Your task to perform on an android device: Add "dell alienware" to the cart on target.com, then select checkout. Image 0: 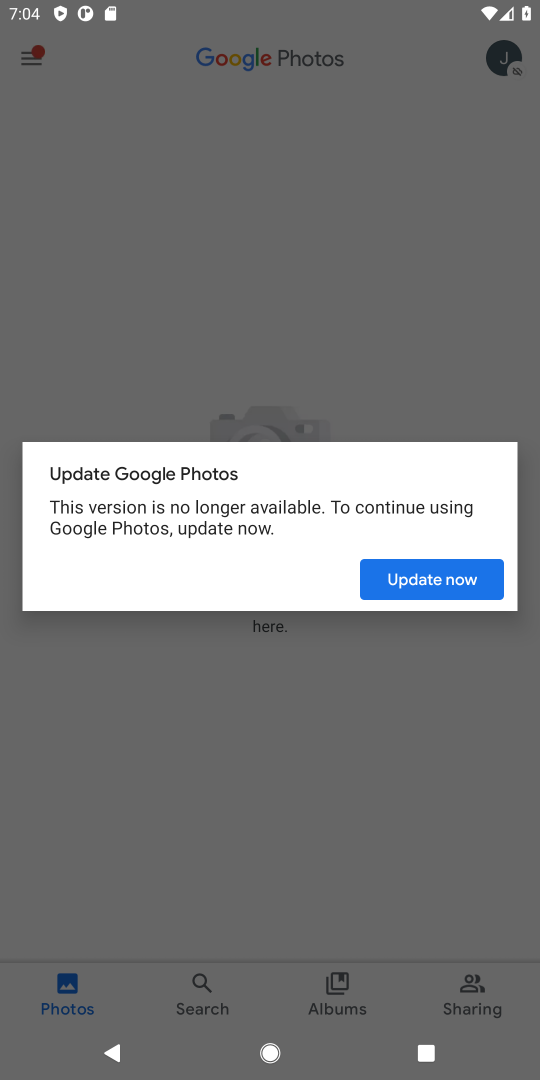
Step 0: press home button
Your task to perform on an android device: Add "dell alienware" to the cart on target.com, then select checkout. Image 1: 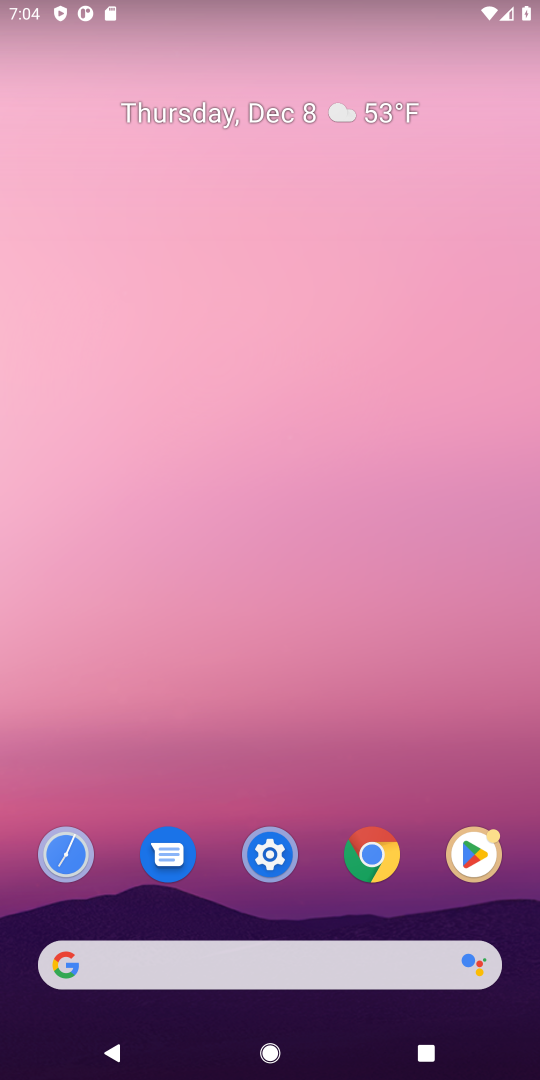
Step 1: click (87, 964)
Your task to perform on an android device: Add "dell alienware" to the cart on target.com, then select checkout. Image 2: 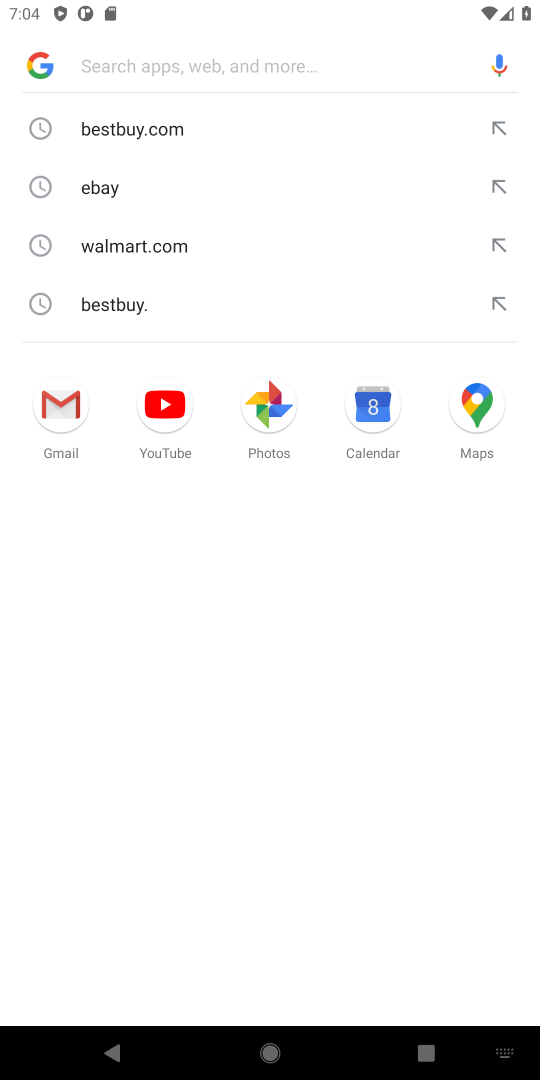
Step 2: type "target.com"
Your task to perform on an android device: Add "dell alienware" to the cart on target.com, then select checkout. Image 3: 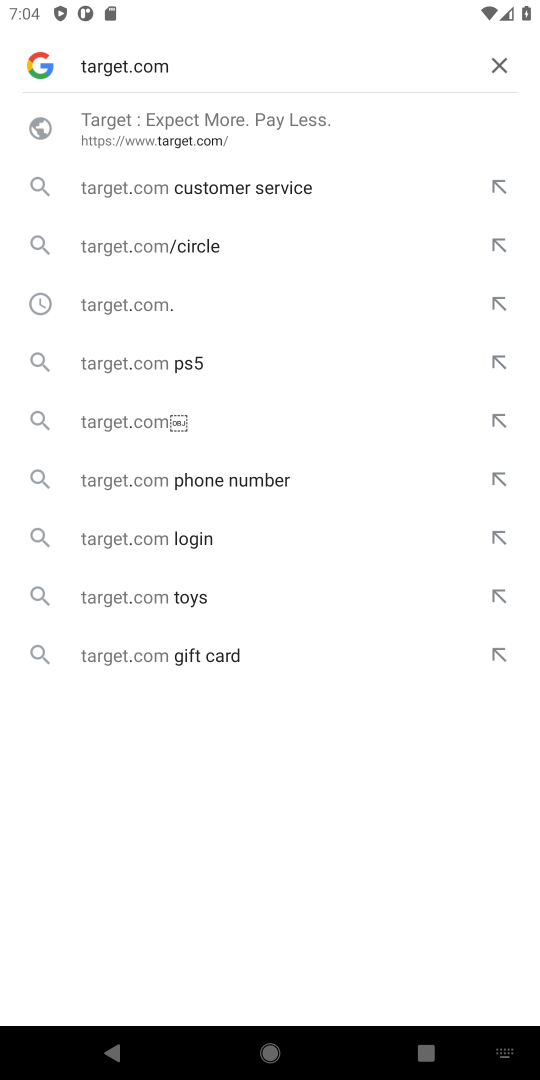
Step 3: press enter
Your task to perform on an android device: Add "dell alienware" to the cart on target.com, then select checkout. Image 4: 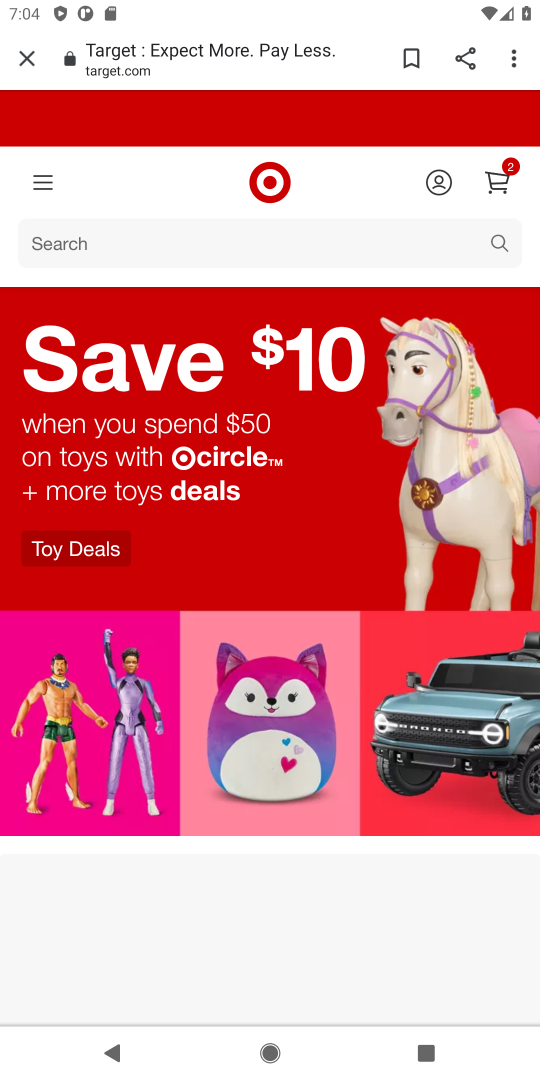
Step 4: click (48, 239)
Your task to perform on an android device: Add "dell alienware" to the cart on target.com, then select checkout. Image 5: 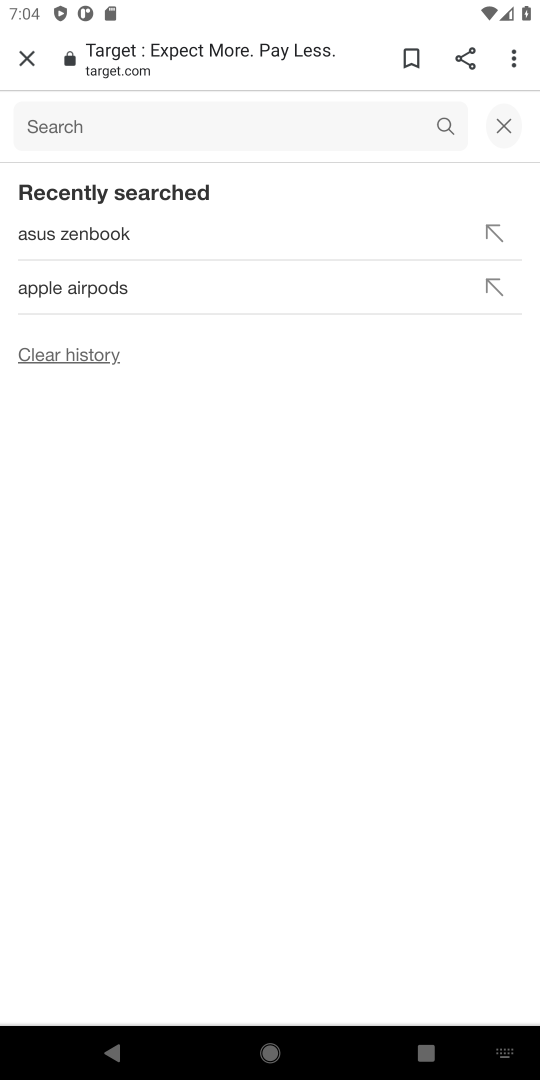
Step 5: type "dell alienware"
Your task to perform on an android device: Add "dell alienware" to the cart on target.com, then select checkout. Image 6: 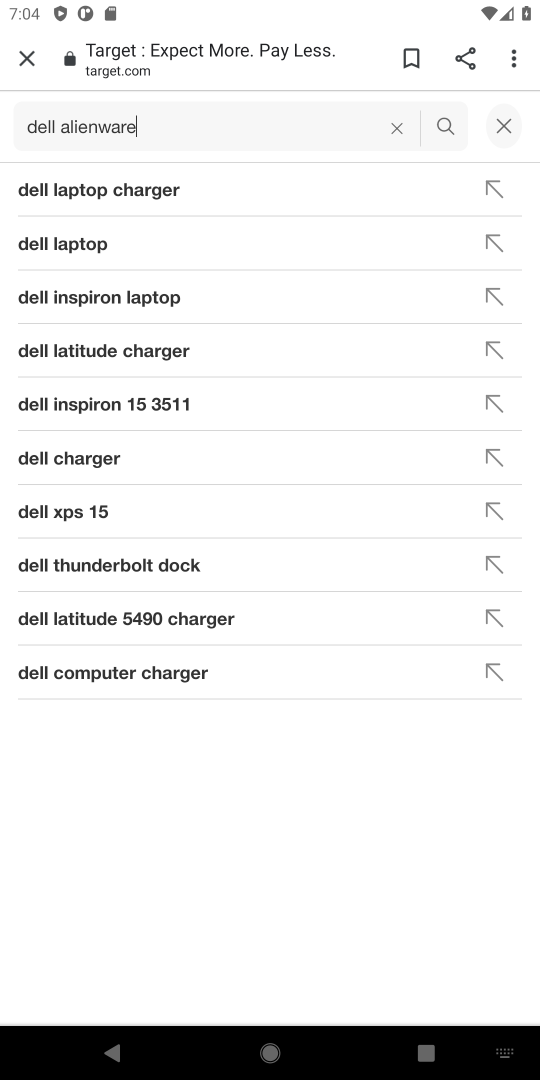
Step 6: press enter
Your task to perform on an android device: Add "dell alienware" to the cart on target.com, then select checkout. Image 7: 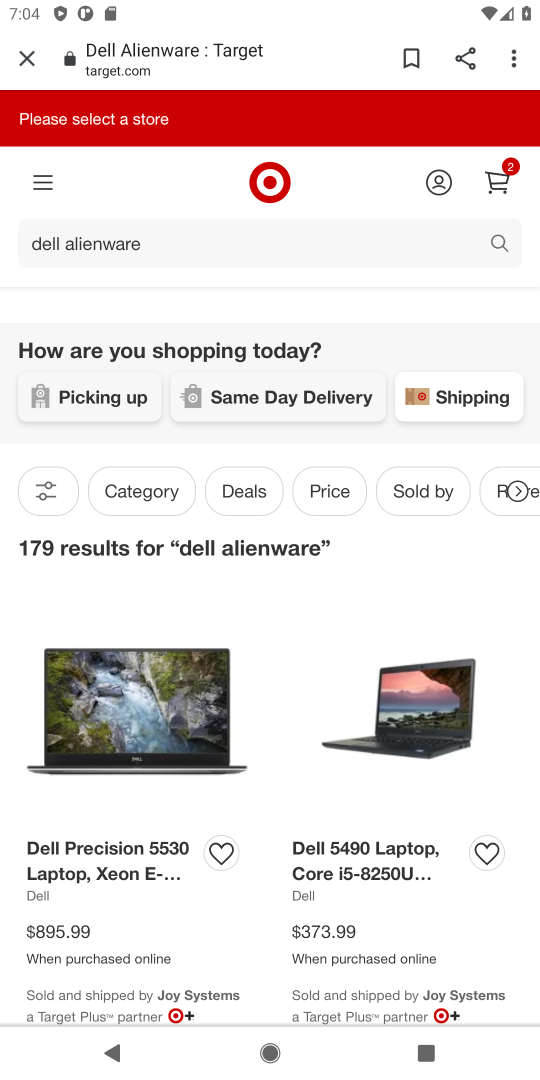
Step 7: task complete